Your task to perform on an android device: open chrome and create a bookmark for the current page Image 0: 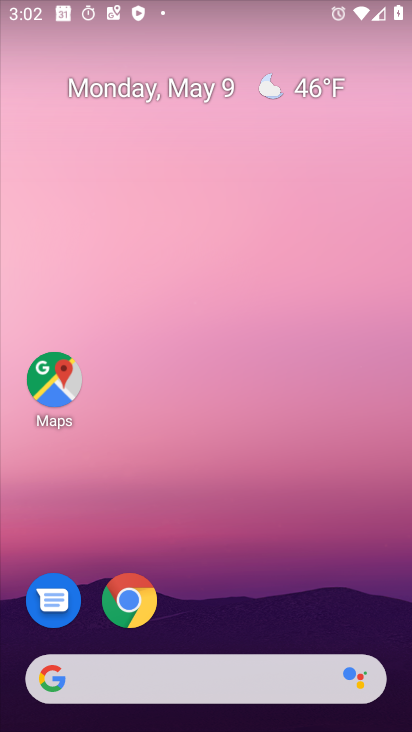
Step 0: click (128, 606)
Your task to perform on an android device: open chrome and create a bookmark for the current page Image 1: 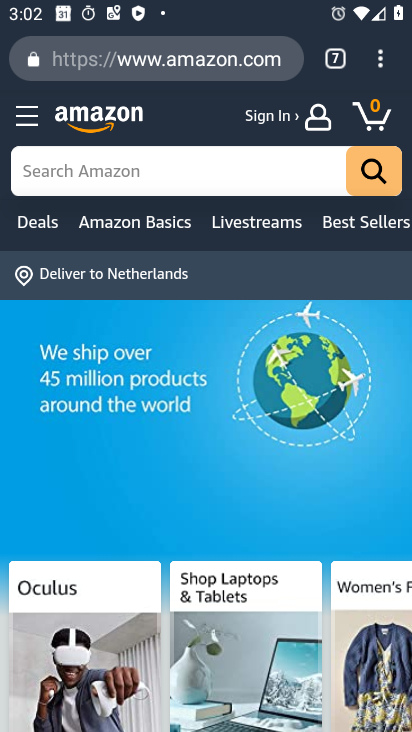
Step 1: task complete